Your task to perform on an android device: open sync settings in chrome Image 0: 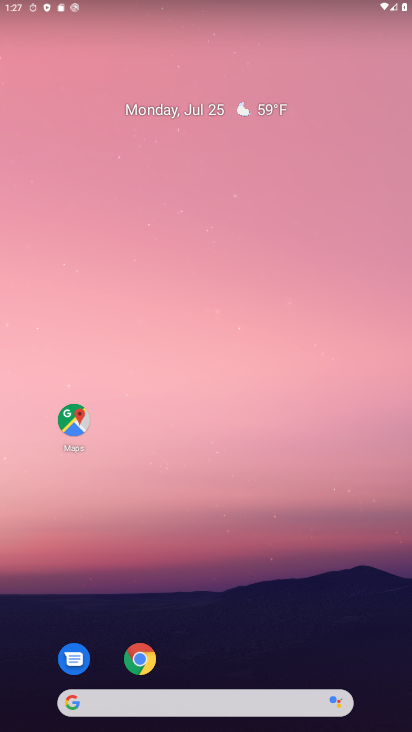
Step 0: click (142, 660)
Your task to perform on an android device: open sync settings in chrome Image 1: 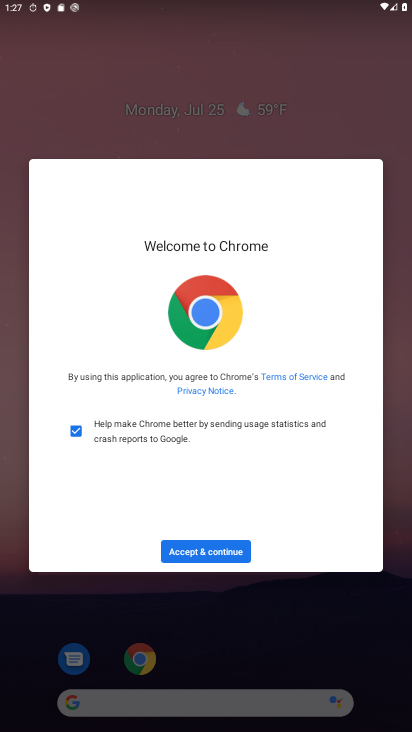
Step 1: click (197, 551)
Your task to perform on an android device: open sync settings in chrome Image 2: 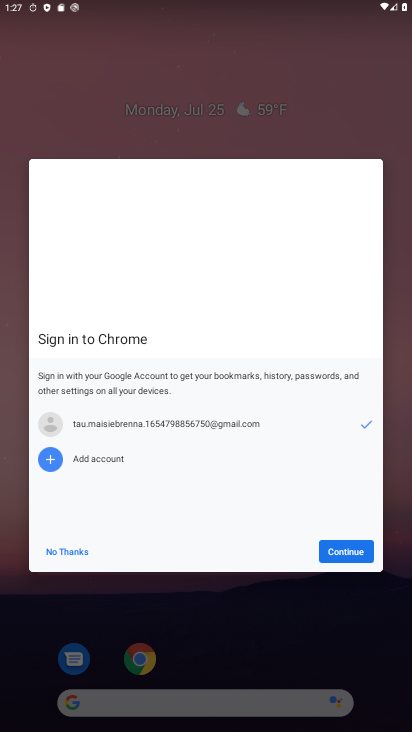
Step 2: click (38, 548)
Your task to perform on an android device: open sync settings in chrome Image 3: 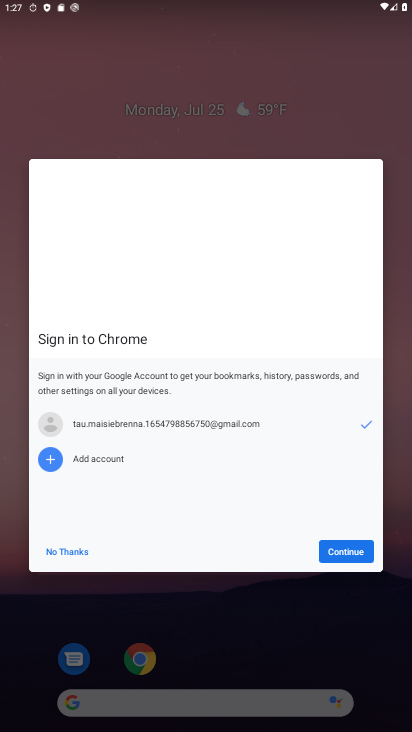
Step 3: click (60, 555)
Your task to perform on an android device: open sync settings in chrome Image 4: 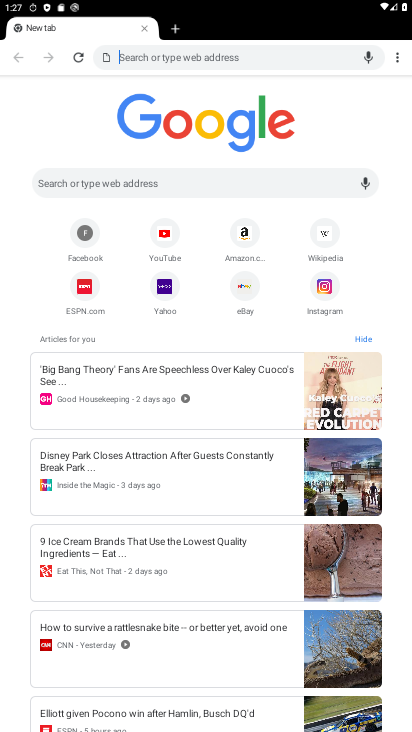
Step 4: drag from (400, 59) to (281, 263)
Your task to perform on an android device: open sync settings in chrome Image 5: 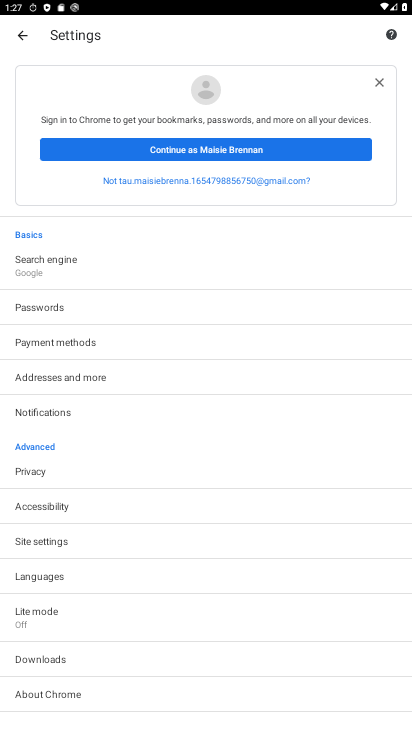
Step 5: click (211, 147)
Your task to perform on an android device: open sync settings in chrome Image 6: 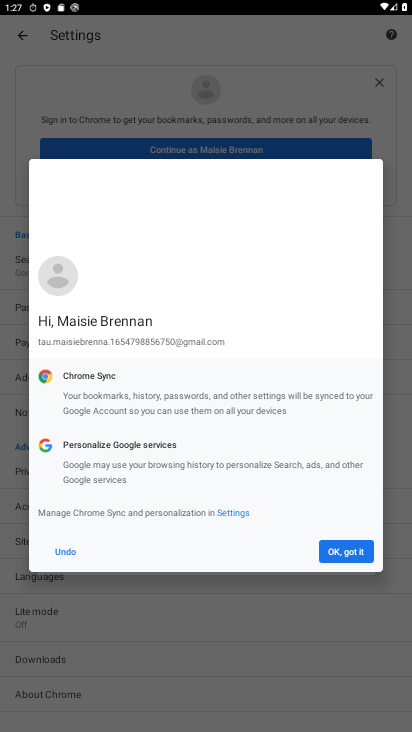
Step 6: click (332, 558)
Your task to perform on an android device: open sync settings in chrome Image 7: 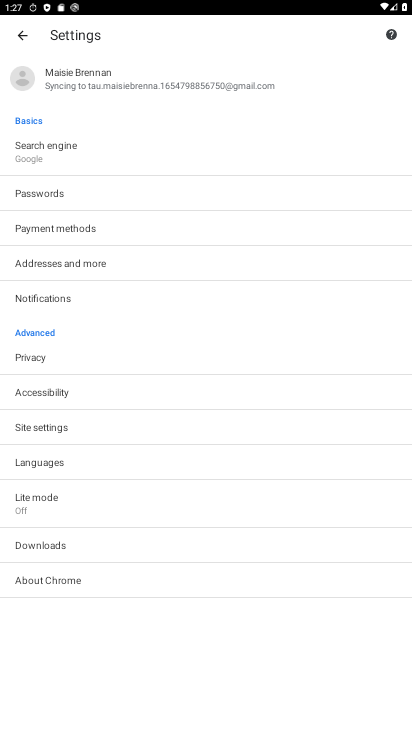
Step 7: click (122, 91)
Your task to perform on an android device: open sync settings in chrome Image 8: 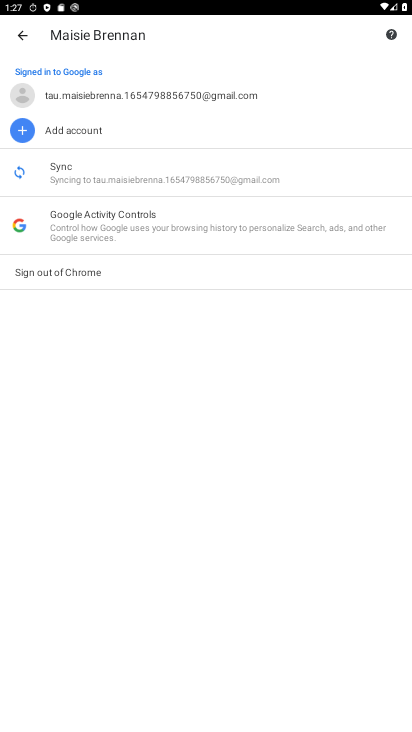
Step 8: click (117, 176)
Your task to perform on an android device: open sync settings in chrome Image 9: 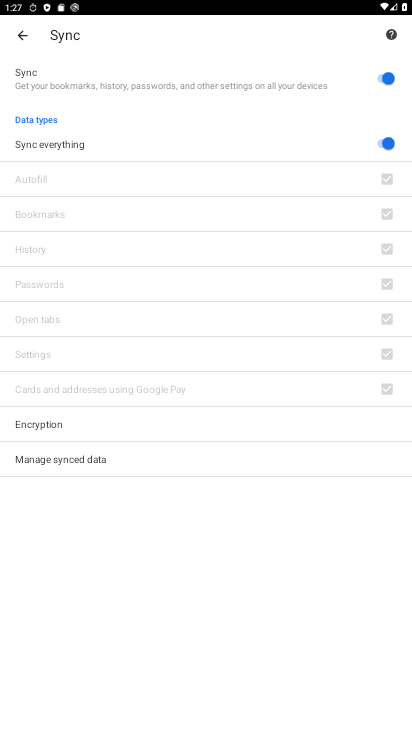
Step 9: task complete